Your task to perform on an android device: toggle pop-ups in chrome Image 0: 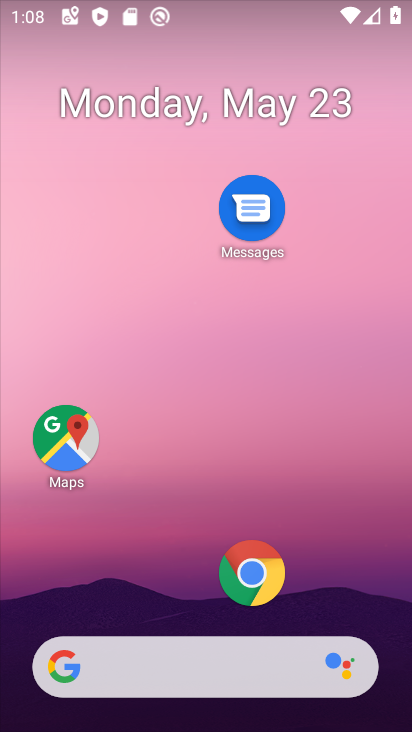
Step 0: drag from (169, 287) to (230, 17)
Your task to perform on an android device: toggle pop-ups in chrome Image 1: 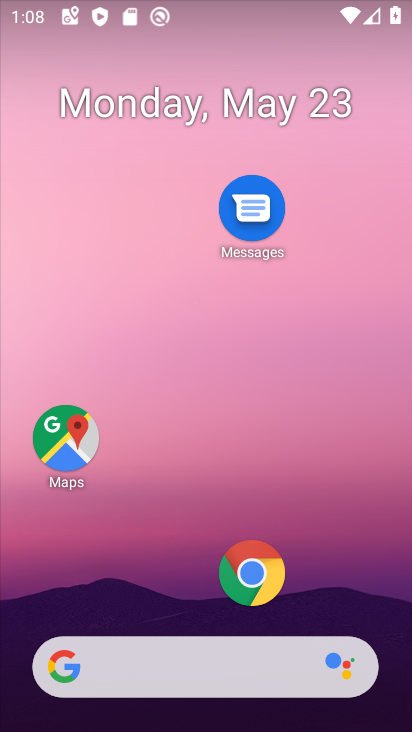
Step 1: drag from (151, 537) to (155, 96)
Your task to perform on an android device: toggle pop-ups in chrome Image 2: 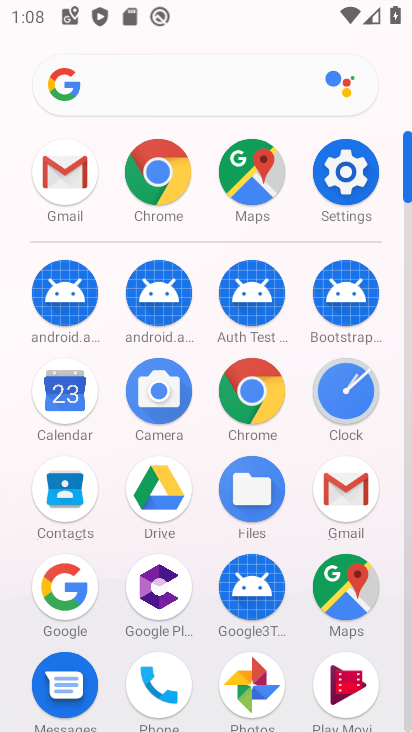
Step 2: click (159, 182)
Your task to perform on an android device: toggle pop-ups in chrome Image 3: 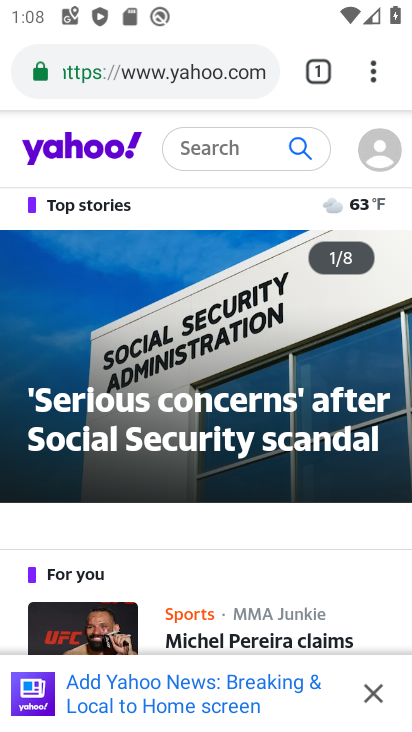
Step 3: click (369, 81)
Your task to perform on an android device: toggle pop-ups in chrome Image 4: 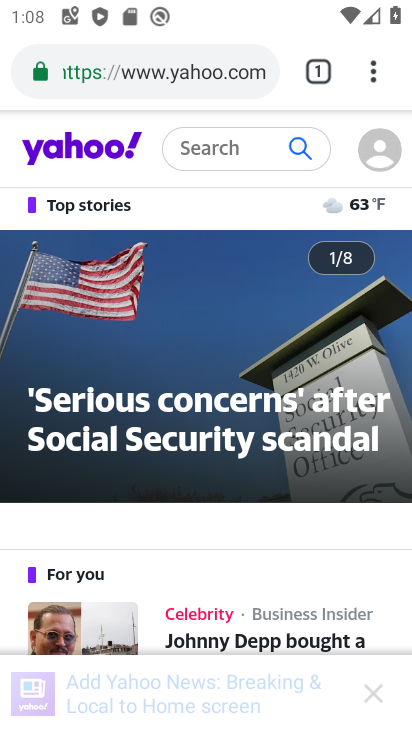
Step 4: click (376, 69)
Your task to perform on an android device: toggle pop-ups in chrome Image 5: 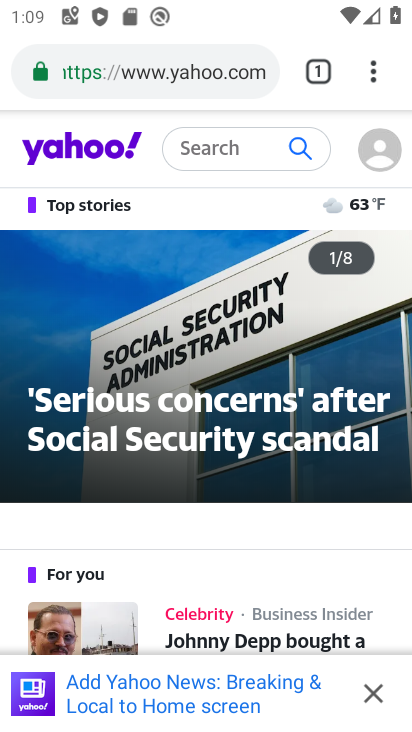
Step 5: click (368, 72)
Your task to perform on an android device: toggle pop-ups in chrome Image 6: 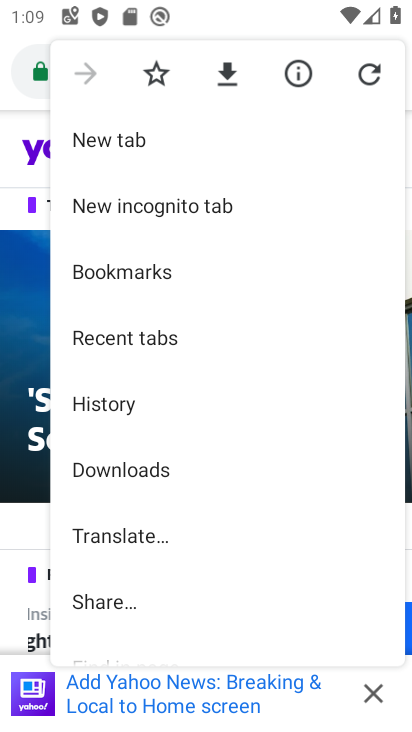
Step 6: drag from (171, 577) to (214, 193)
Your task to perform on an android device: toggle pop-ups in chrome Image 7: 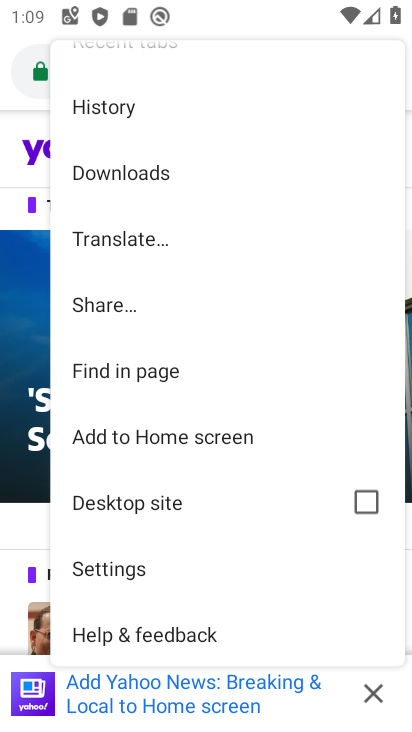
Step 7: click (142, 574)
Your task to perform on an android device: toggle pop-ups in chrome Image 8: 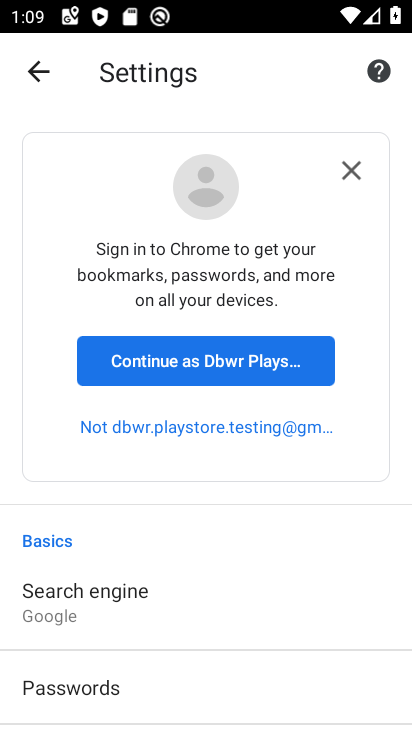
Step 8: drag from (228, 551) to (261, 115)
Your task to perform on an android device: toggle pop-ups in chrome Image 9: 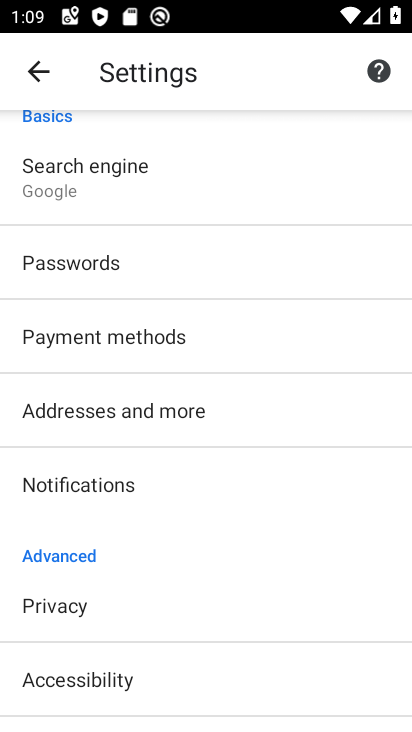
Step 9: drag from (251, 545) to (262, 186)
Your task to perform on an android device: toggle pop-ups in chrome Image 10: 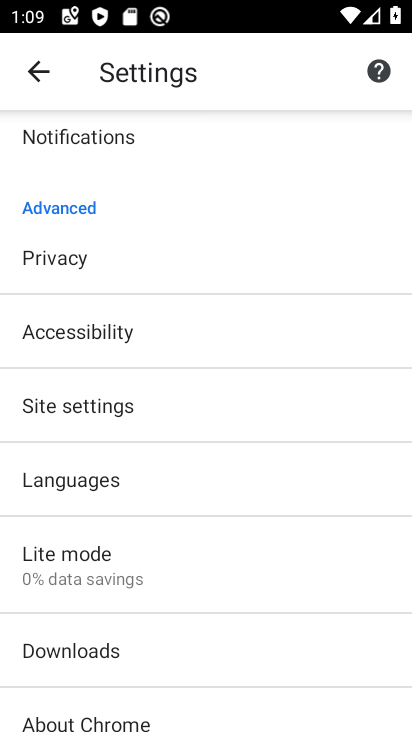
Step 10: click (189, 404)
Your task to perform on an android device: toggle pop-ups in chrome Image 11: 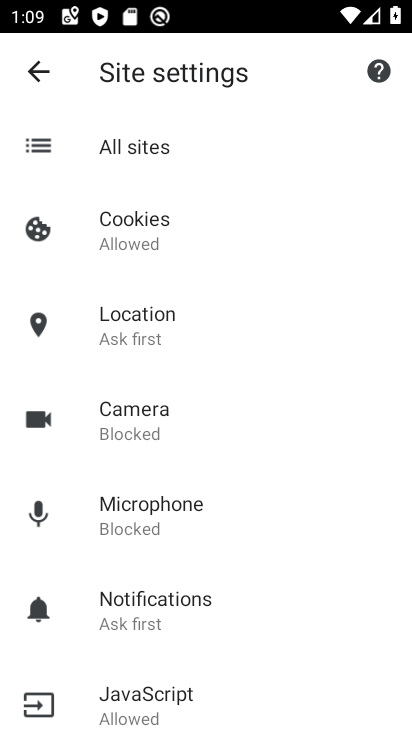
Step 11: drag from (304, 488) to (317, 131)
Your task to perform on an android device: toggle pop-ups in chrome Image 12: 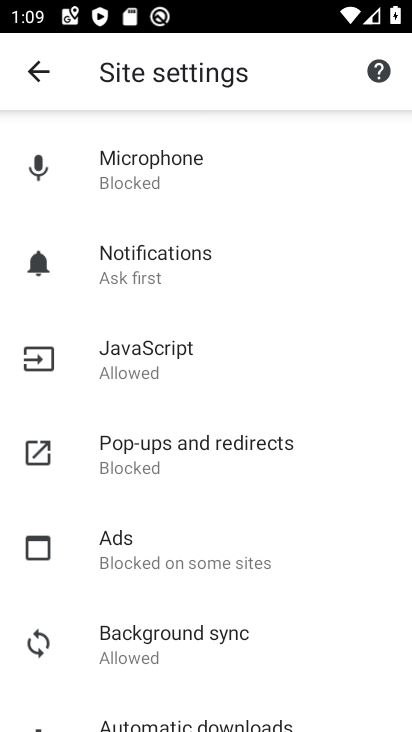
Step 12: click (257, 442)
Your task to perform on an android device: toggle pop-ups in chrome Image 13: 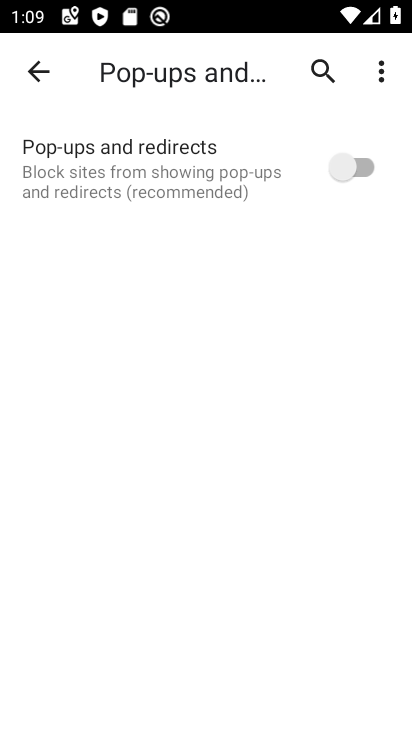
Step 13: click (359, 162)
Your task to perform on an android device: toggle pop-ups in chrome Image 14: 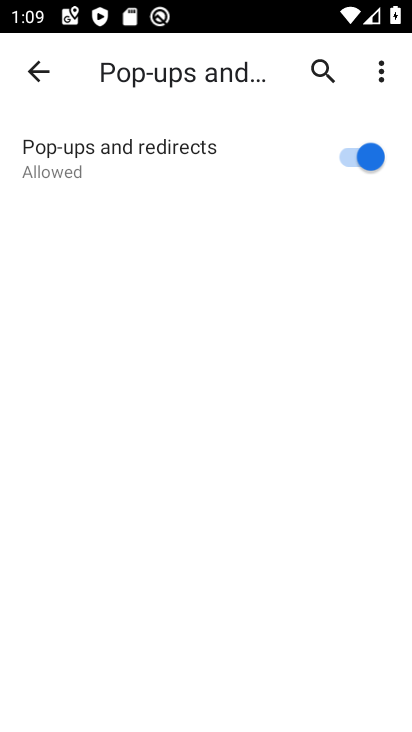
Step 14: task complete